Your task to perform on an android device: turn on translation in the chrome app Image 0: 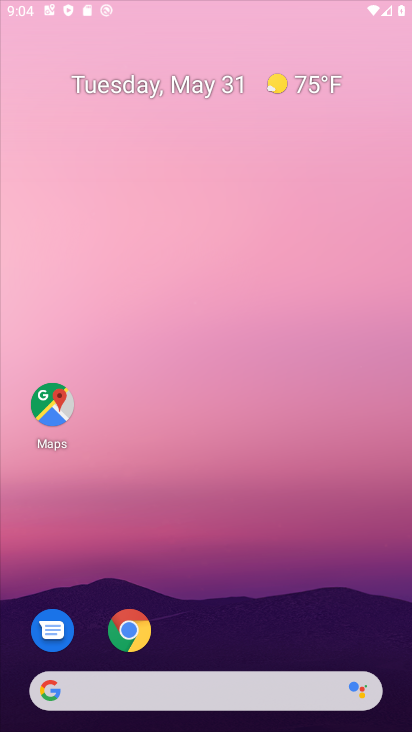
Step 0: click (231, 175)
Your task to perform on an android device: turn on translation in the chrome app Image 1: 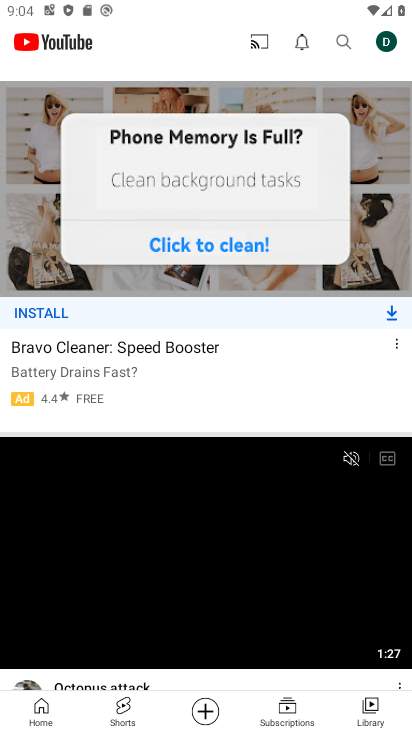
Step 1: press home button
Your task to perform on an android device: turn on translation in the chrome app Image 2: 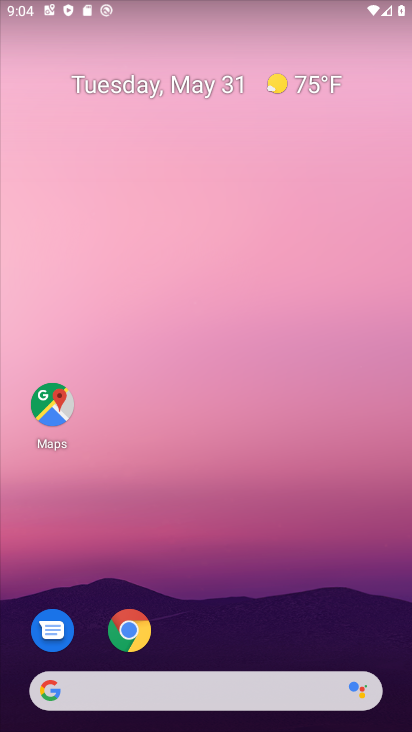
Step 2: click (148, 631)
Your task to perform on an android device: turn on translation in the chrome app Image 3: 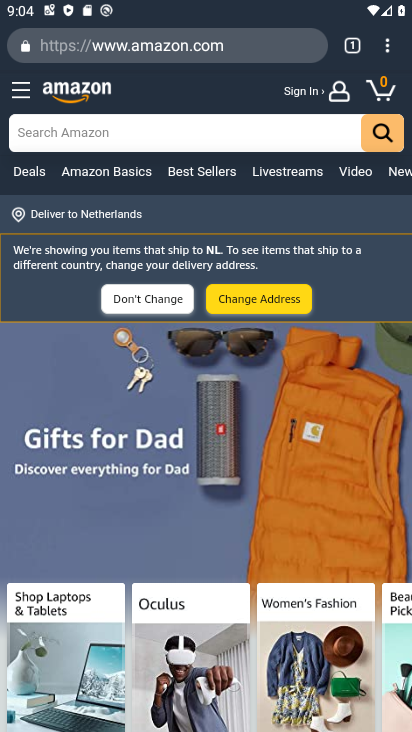
Step 3: click (396, 51)
Your task to perform on an android device: turn on translation in the chrome app Image 4: 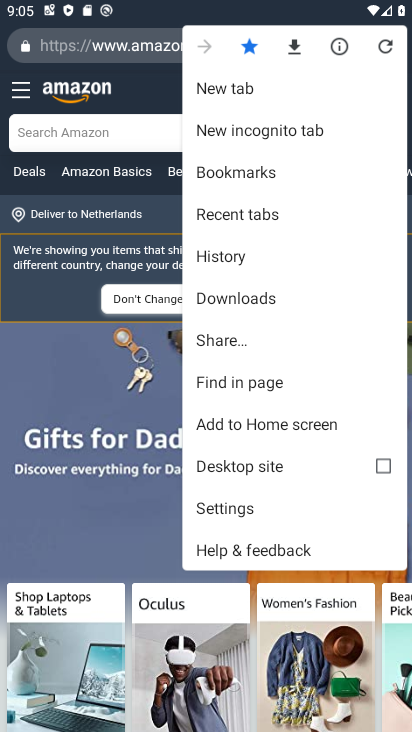
Step 4: task complete